Your task to perform on an android device: Show me recent news Image 0: 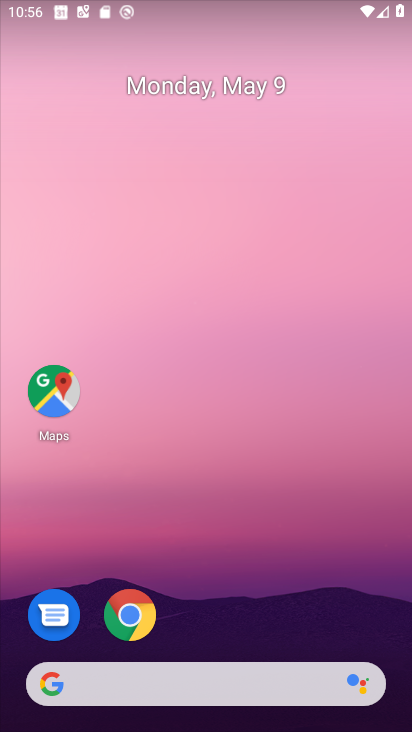
Step 0: drag from (211, 726) to (227, 533)
Your task to perform on an android device: Show me recent news Image 1: 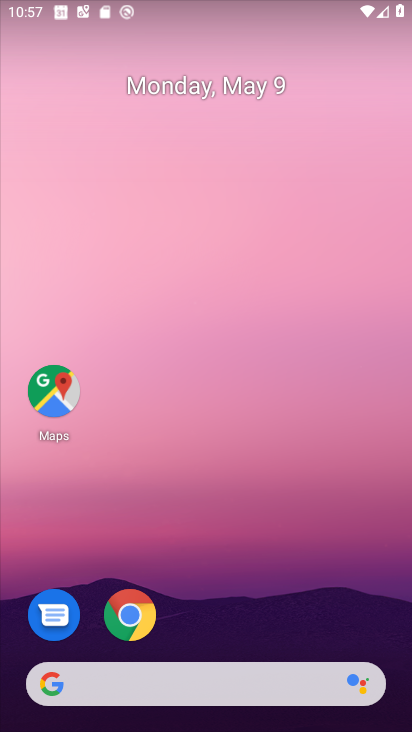
Step 1: drag from (230, 704) to (206, 284)
Your task to perform on an android device: Show me recent news Image 2: 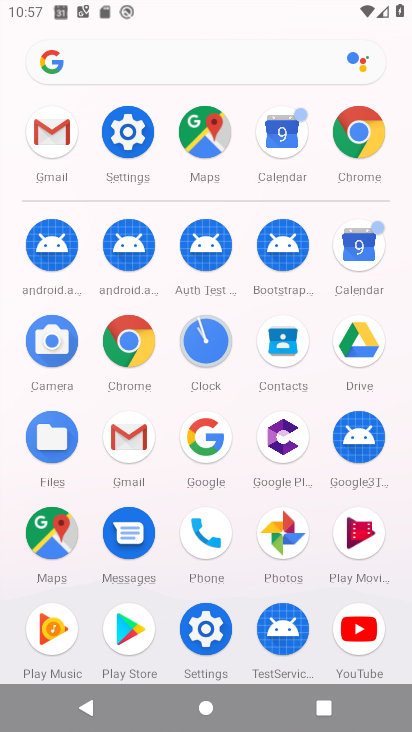
Step 2: click (117, 61)
Your task to perform on an android device: Show me recent news Image 3: 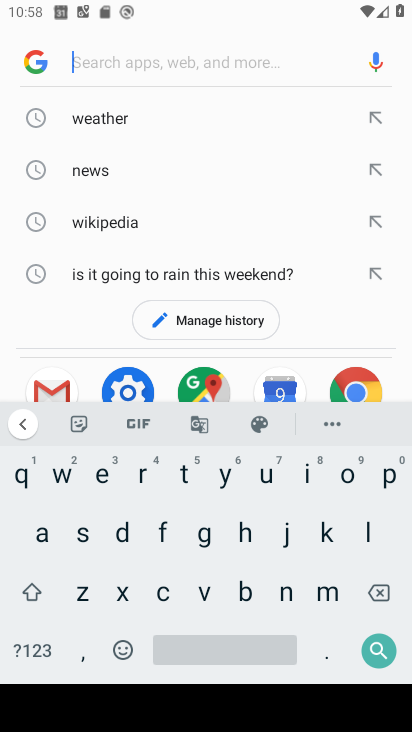
Step 3: click (133, 479)
Your task to perform on an android device: Show me recent news Image 4: 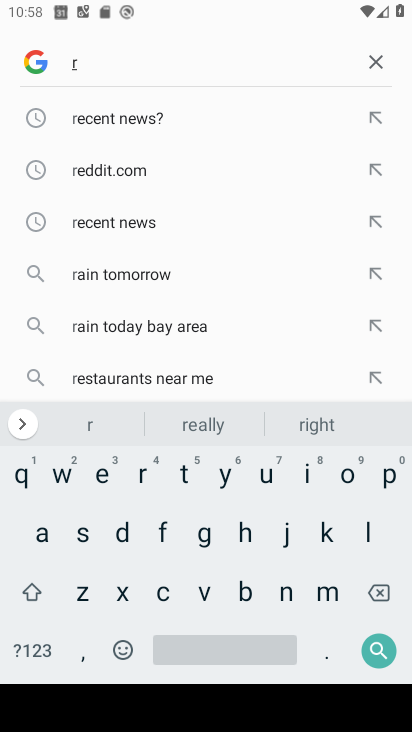
Step 4: click (149, 226)
Your task to perform on an android device: Show me recent news Image 5: 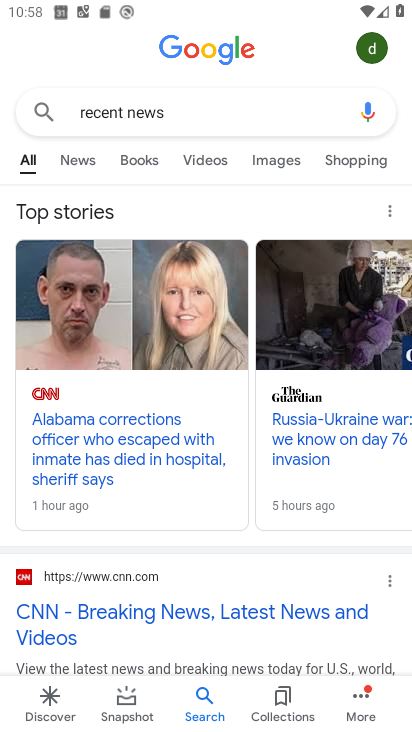
Step 5: task complete